Your task to perform on an android device: toggle translation in the chrome app Image 0: 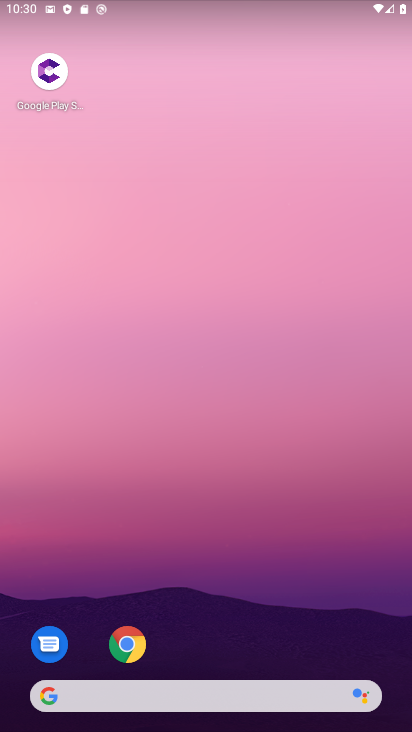
Step 0: click (128, 639)
Your task to perform on an android device: toggle translation in the chrome app Image 1: 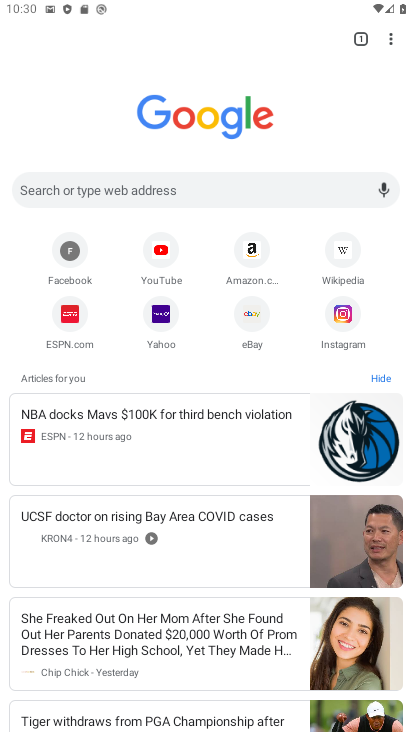
Step 1: click (392, 30)
Your task to perform on an android device: toggle translation in the chrome app Image 2: 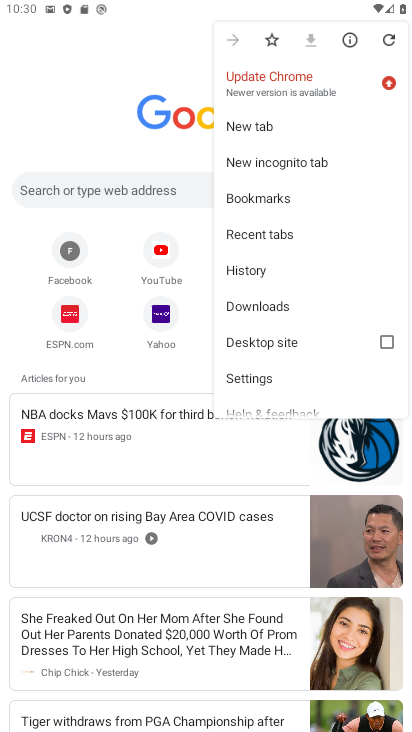
Step 2: click (277, 372)
Your task to perform on an android device: toggle translation in the chrome app Image 3: 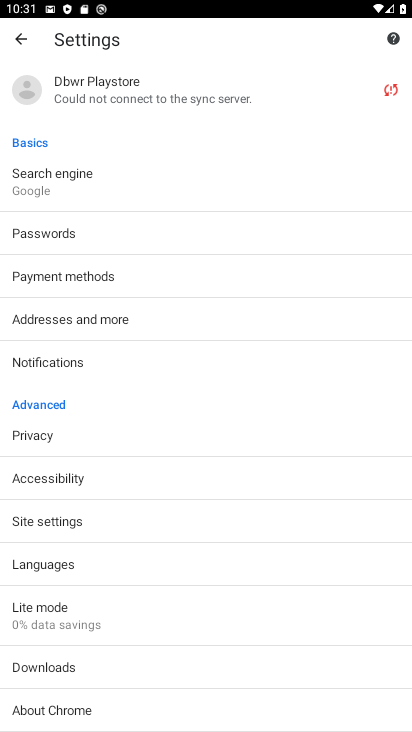
Step 3: click (90, 564)
Your task to perform on an android device: toggle translation in the chrome app Image 4: 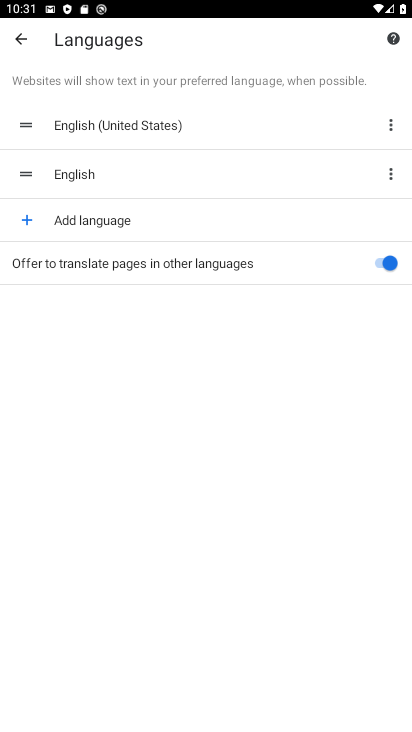
Step 4: click (384, 260)
Your task to perform on an android device: toggle translation in the chrome app Image 5: 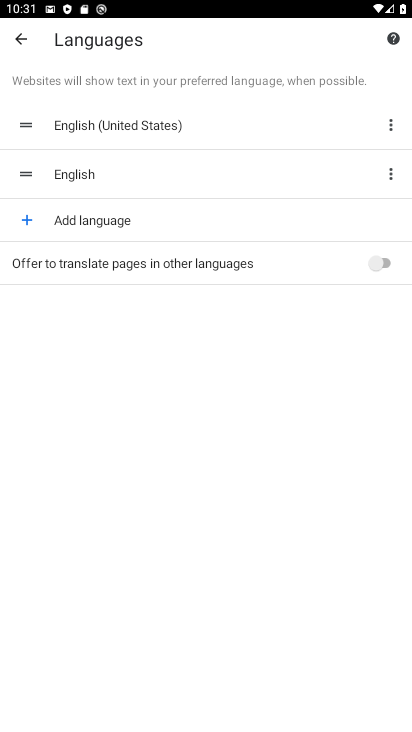
Step 5: task complete